Your task to perform on an android device: open the mobile data screen to see how much data has been used Image 0: 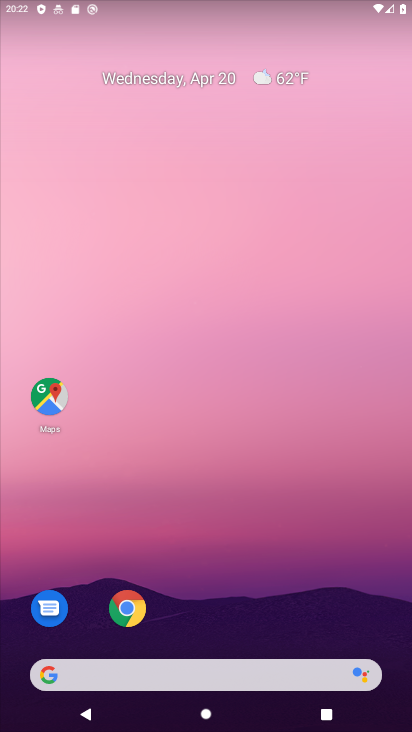
Step 0: drag from (225, 549) to (177, 0)
Your task to perform on an android device: open the mobile data screen to see how much data has been used Image 1: 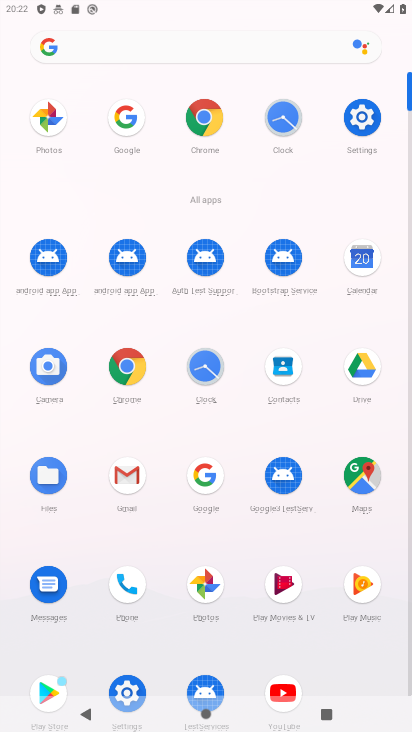
Step 1: drag from (181, 0) to (114, 364)
Your task to perform on an android device: open the mobile data screen to see how much data has been used Image 2: 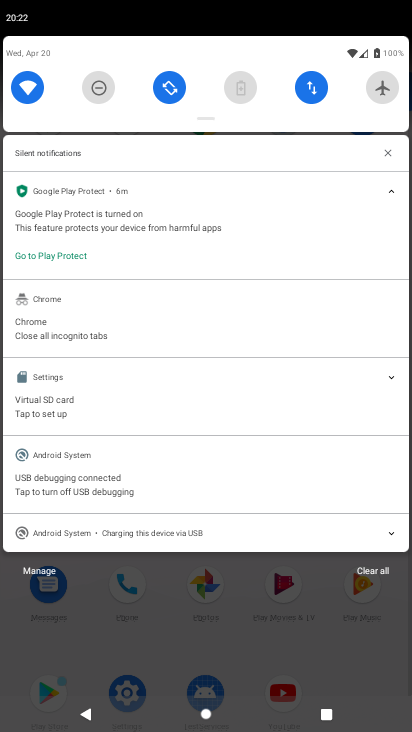
Step 2: click (305, 82)
Your task to perform on an android device: open the mobile data screen to see how much data has been used Image 3: 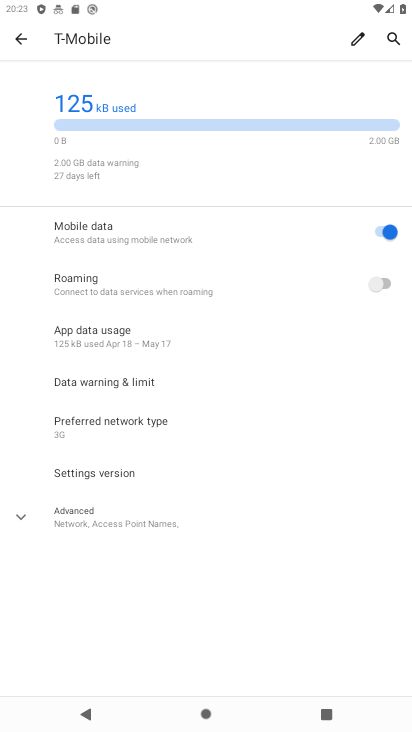
Step 3: task complete